Your task to perform on an android device: Open network settings Image 0: 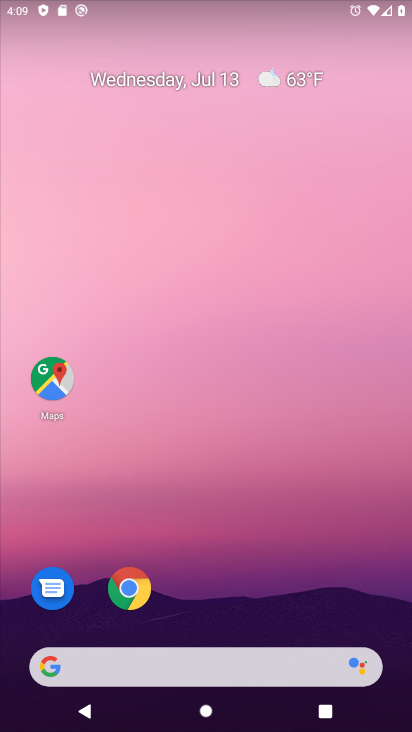
Step 0: drag from (223, 666) to (226, 145)
Your task to perform on an android device: Open network settings Image 1: 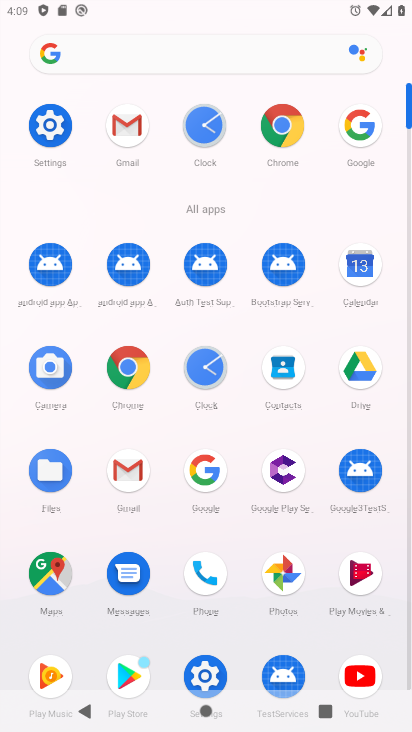
Step 1: click (52, 121)
Your task to perform on an android device: Open network settings Image 2: 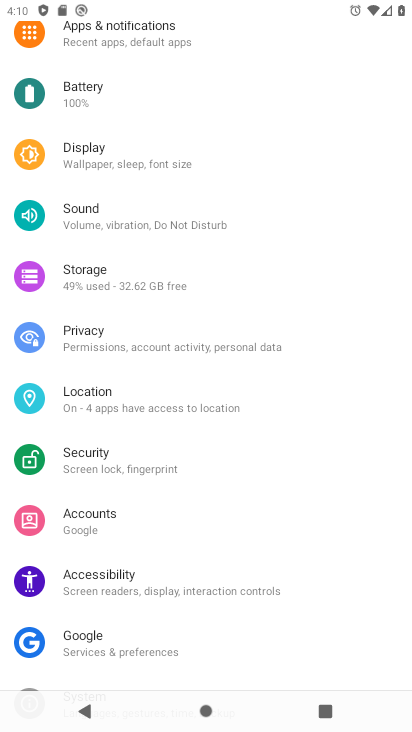
Step 2: drag from (128, 139) to (143, 259)
Your task to perform on an android device: Open network settings Image 3: 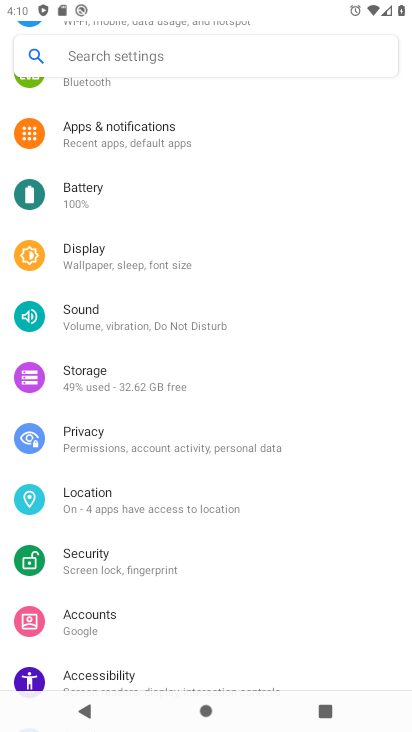
Step 3: drag from (180, 106) to (167, 322)
Your task to perform on an android device: Open network settings Image 4: 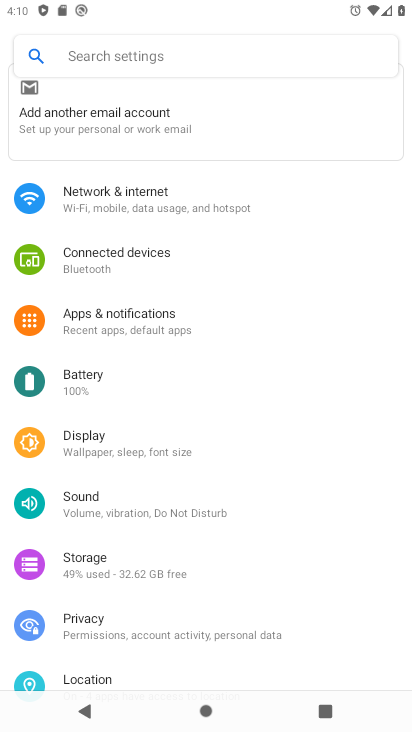
Step 4: click (194, 203)
Your task to perform on an android device: Open network settings Image 5: 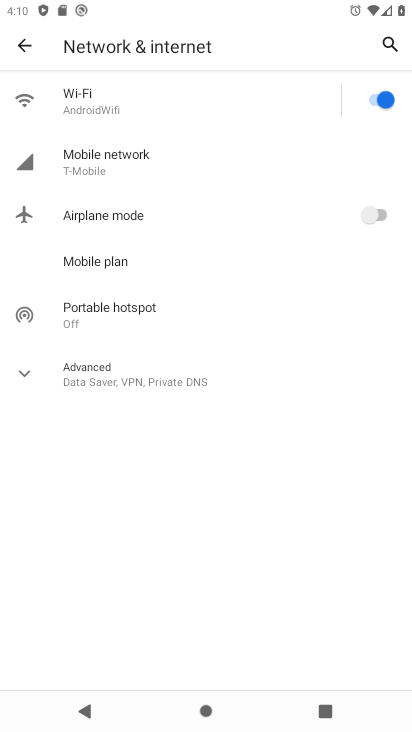
Step 5: task complete